Your task to perform on an android device: Open the web browser Image 0: 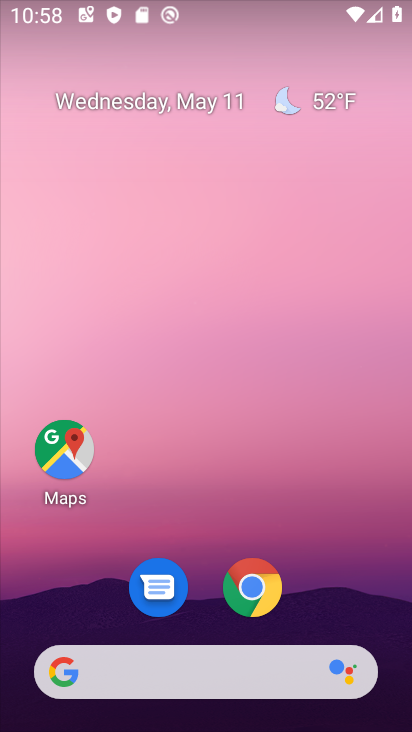
Step 0: drag from (281, 703) to (330, 81)
Your task to perform on an android device: Open the web browser Image 1: 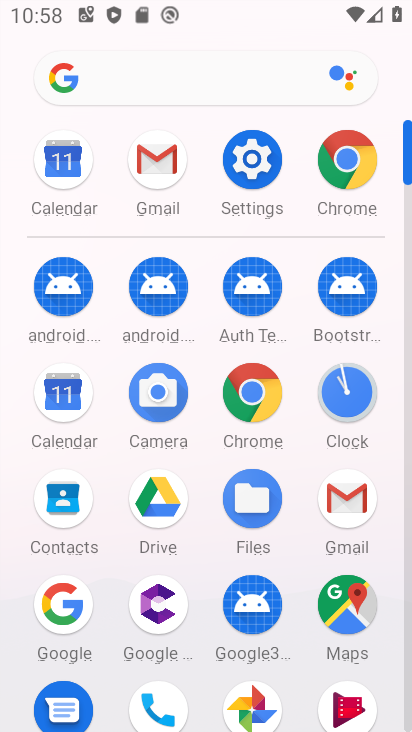
Step 1: click (244, 373)
Your task to perform on an android device: Open the web browser Image 2: 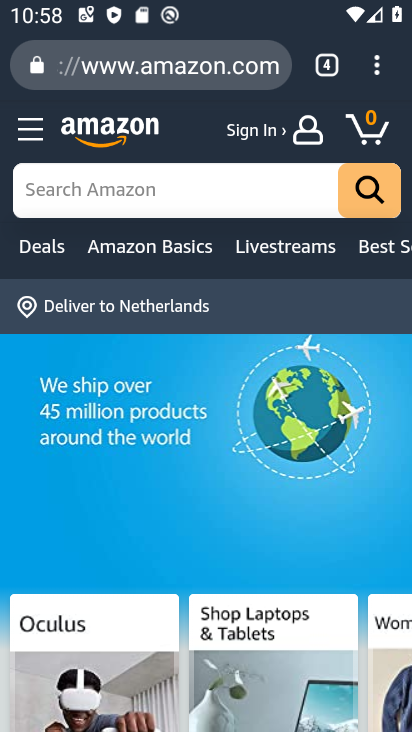
Step 2: click (384, 79)
Your task to perform on an android device: Open the web browser Image 3: 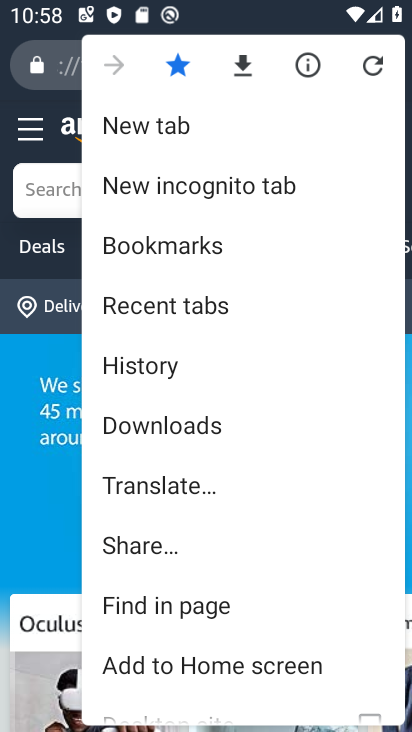
Step 3: click (169, 136)
Your task to perform on an android device: Open the web browser Image 4: 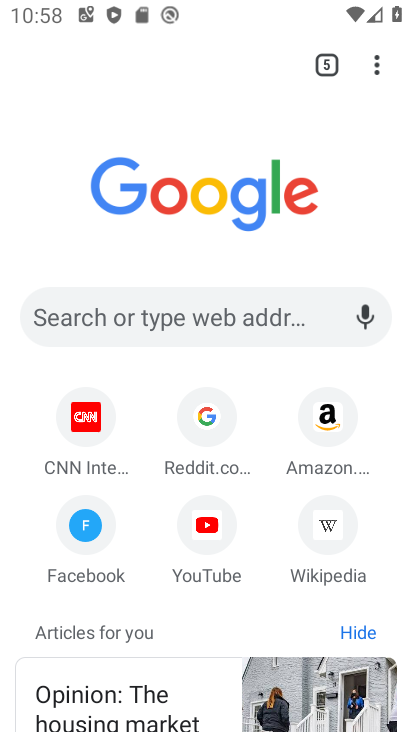
Step 4: click (129, 314)
Your task to perform on an android device: Open the web browser Image 5: 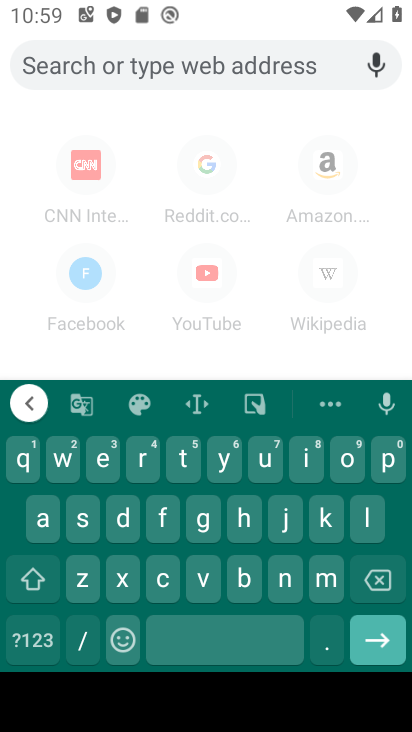
Step 5: task complete